Your task to perform on an android device: Open calendar and show me the fourth week of next month Image 0: 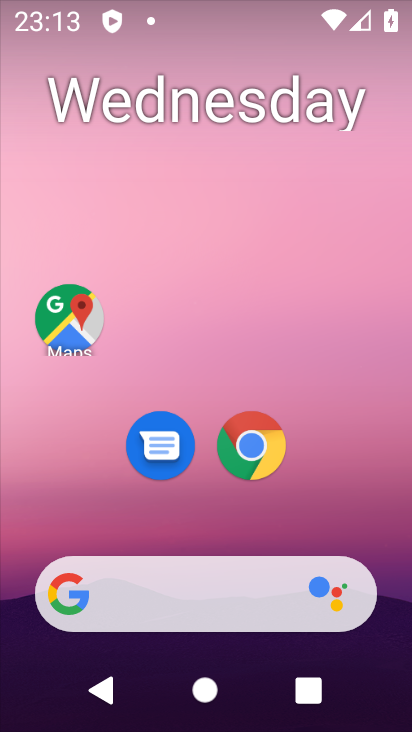
Step 0: drag from (162, 509) to (223, 27)
Your task to perform on an android device: Open calendar and show me the fourth week of next month Image 1: 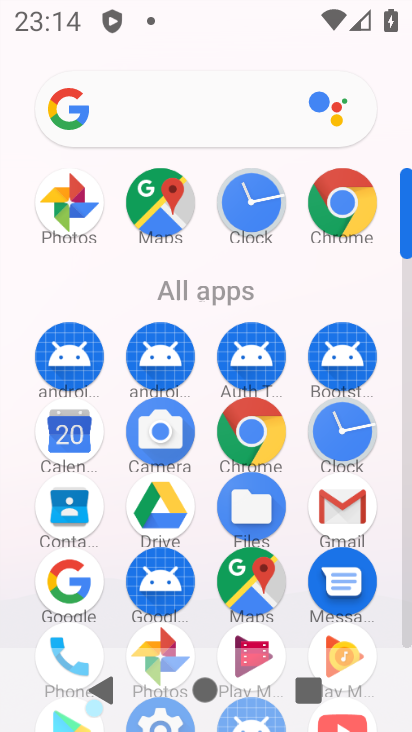
Step 1: click (62, 437)
Your task to perform on an android device: Open calendar and show me the fourth week of next month Image 2: 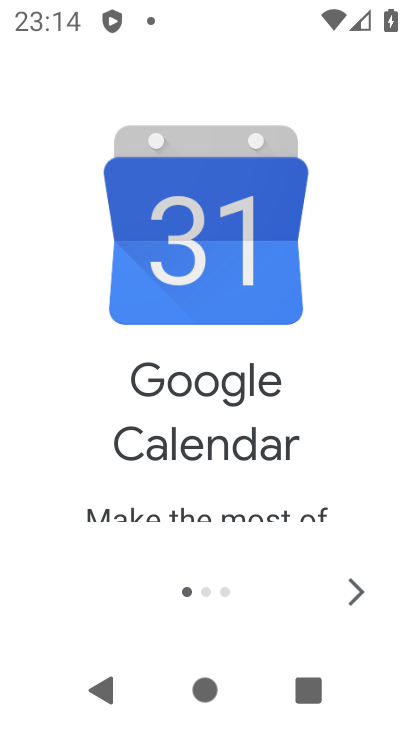
Step 2: click (353, 591)
Your task to perform on an android device: Open calendar and show me the fourth week of next month Image 3: 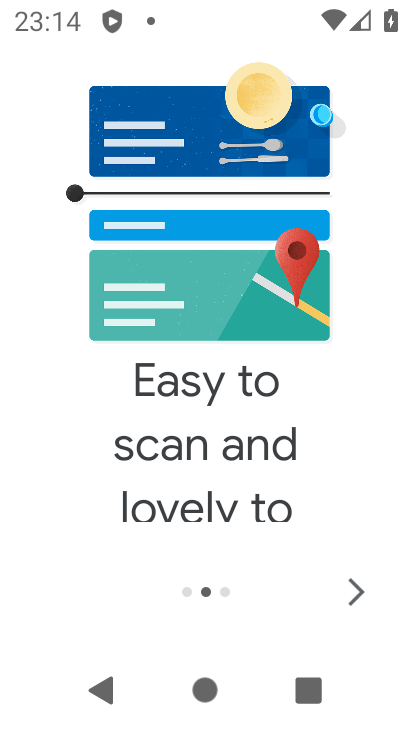
Step 3: click (345, 585)
Your task to perform on an android device: Open calendar and show me the fourth week of next month Image 4: 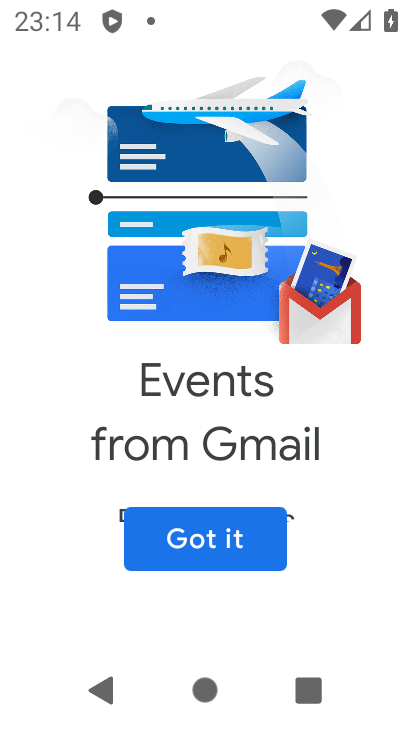
Step 4: click (235, 546)
Your task to perform on an android device: Open calendar and show me the fourth week of next month Image 5: 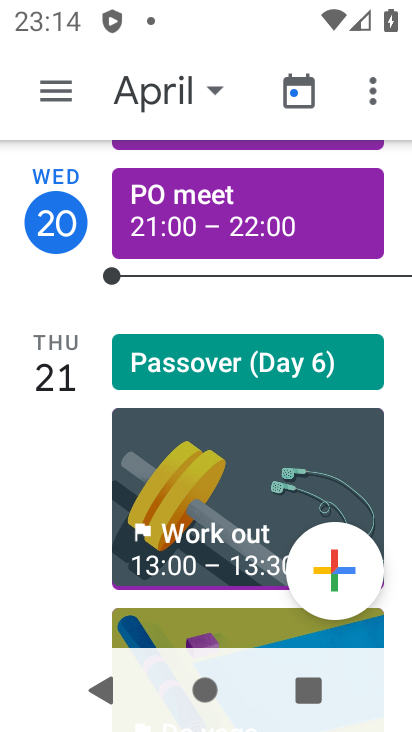
Step 5: click (136, 85)
Your task to perform on an android device: Open calendar and show me the fourth week of next month Image 6: 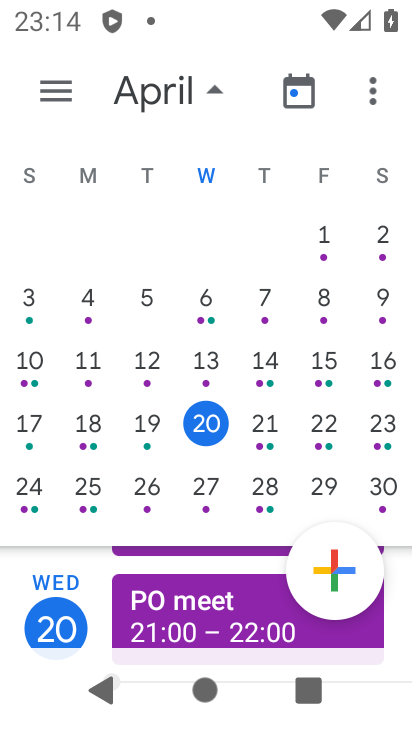
Step 6: drag from (180, 342) to (5, 334)
Your task to perform on an android device: Open calendar and show me the fourth week of next month Image 7: 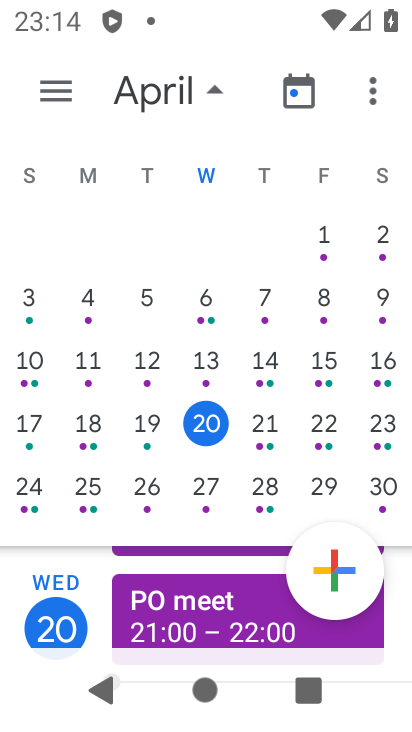
Step 7: drag from (376, 414) to (10, 361)
Your task to perform on an android device: Open calendar and show me the fourth week of next month Image 8: 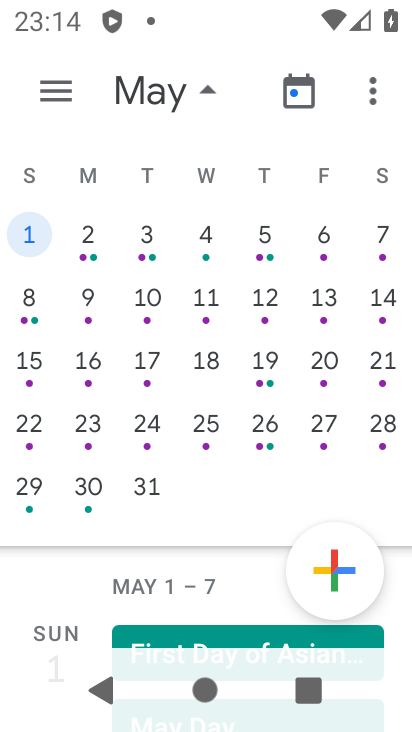
Step 8: click (90, 418)
Your task to perform on an android device: Open calendar and show me the fourth week of next month Image 9: 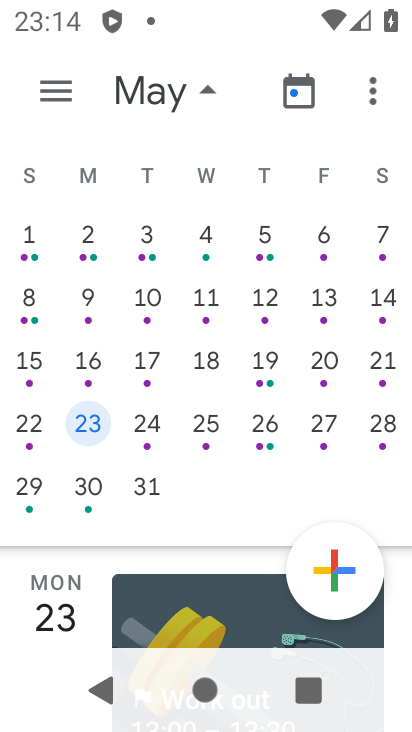
Step 9: task complete